Your task to perform on an android device: Show me the alarms in the clock app Image 0: 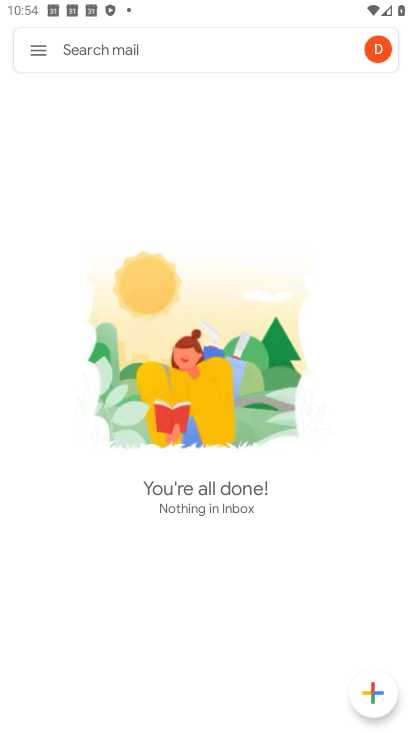
Step 0: press home button
Your task to perform on an android device: Show me the alarms in the clock app Image 1: 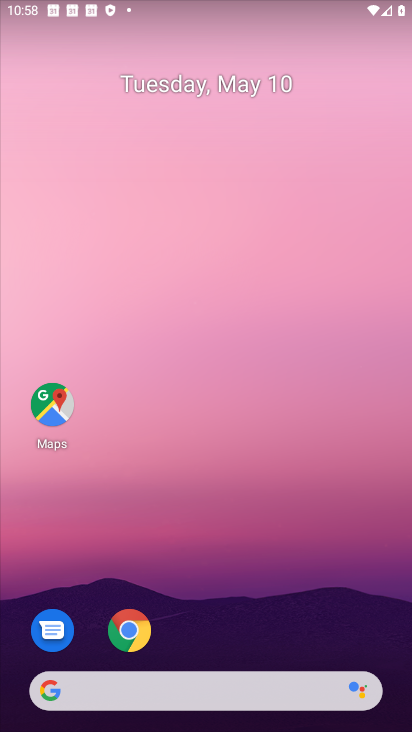
Step 1: drag from (208, 729) to (243, 42)
Your task to perform on an android device: Show me the alarms in the clock app Image 2: 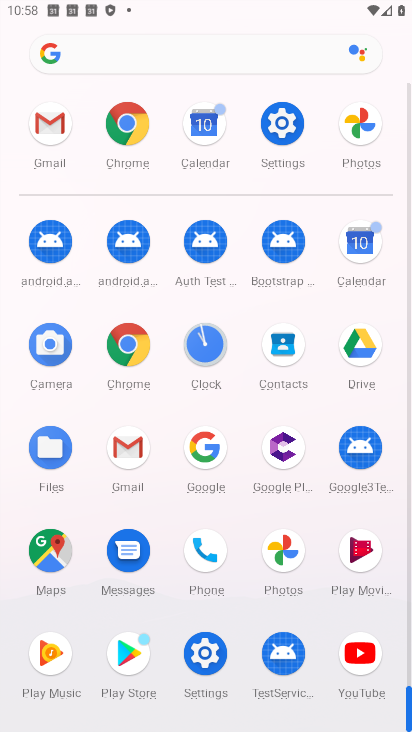
Step 2: click (204, 349)
Your task to perform on an android device: Show me the alarms in the clock app Image 3: 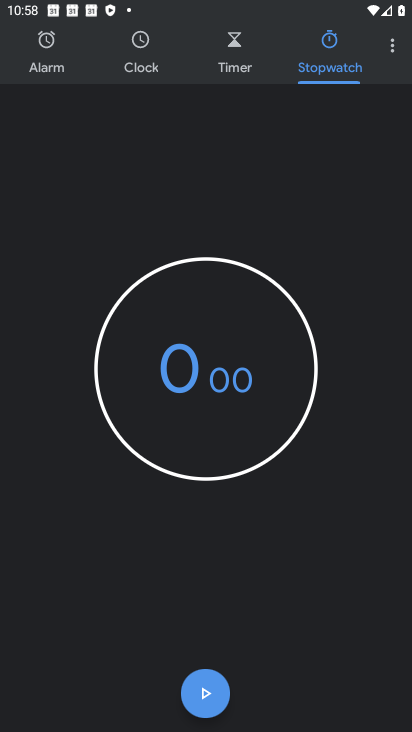
Step 3: click (51, 51)
Your task to perform on an android device: Show me the alarms in the clock app Image 4: 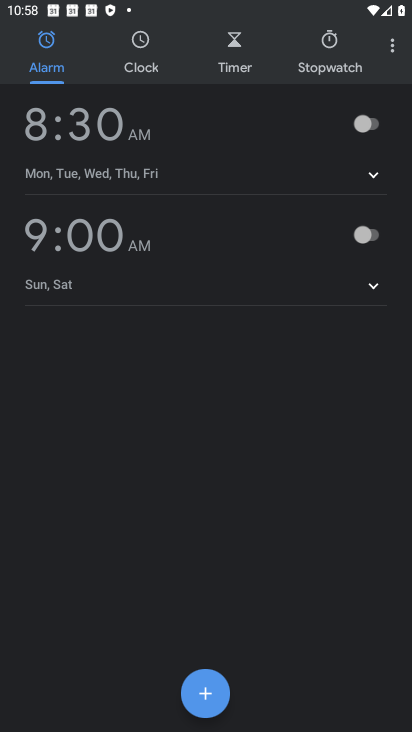
Step 4: click (209, 700)
Your task to perform on an android device: Show me the alarms in the clock app Image 5: 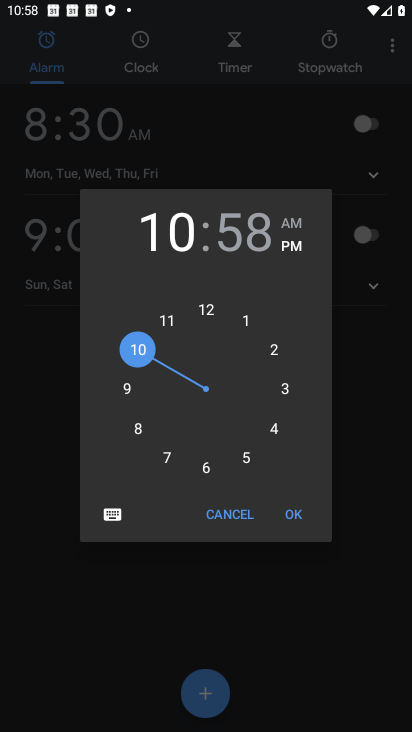
Step 5: click (294, 514)
Your task to perform on an android device: Show me the alarms in the clock app Image 6: 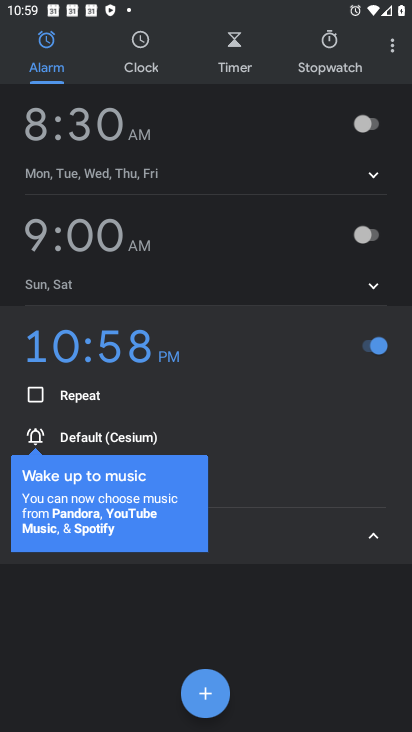
Step 6: task complete